Your task to perform on an android device: toggle improve location accuracy Image 0: 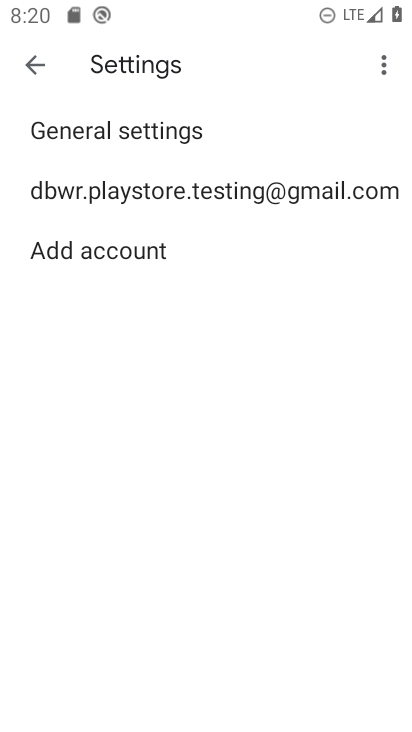
Step 0: press home button
Your task to perform on an android device: toggle improve location accuracy Image 1: 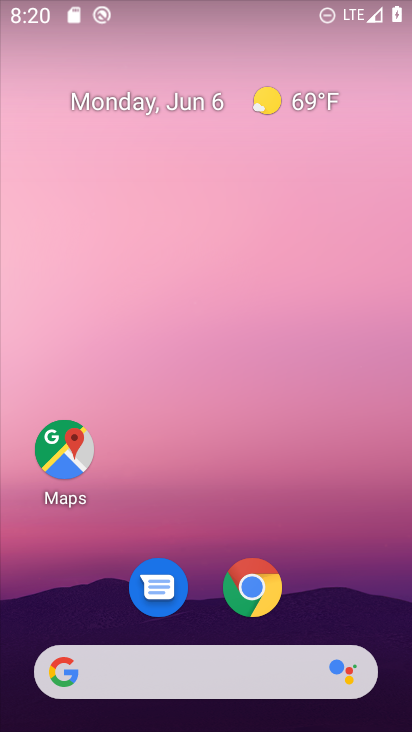
Step 1: drag from (336, 587) to (336, 133)
Your task to perform on an android device: toggle improve location accuracy Image 2: 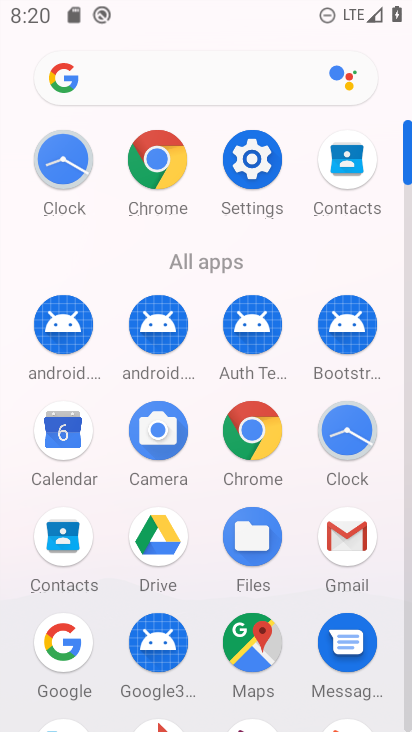
Step 2: click (255, 165)
Your task to perform on an android device: toggle improve location accuracy Image 3: 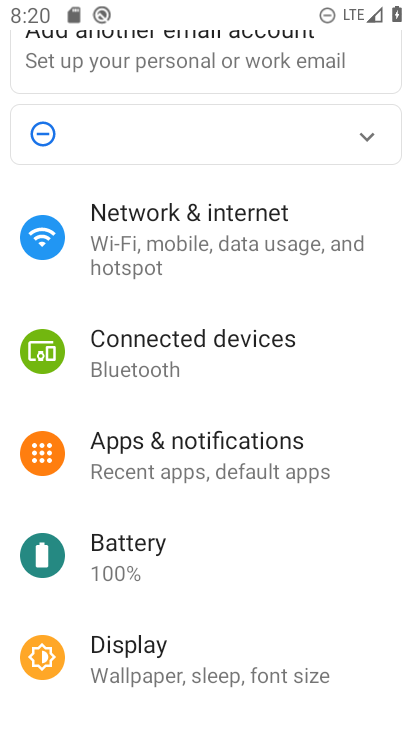
Step 3: drag from (171, 646) to (256, 150)
Your task to perform on an android device: toggle improve location accuracy Image 4: 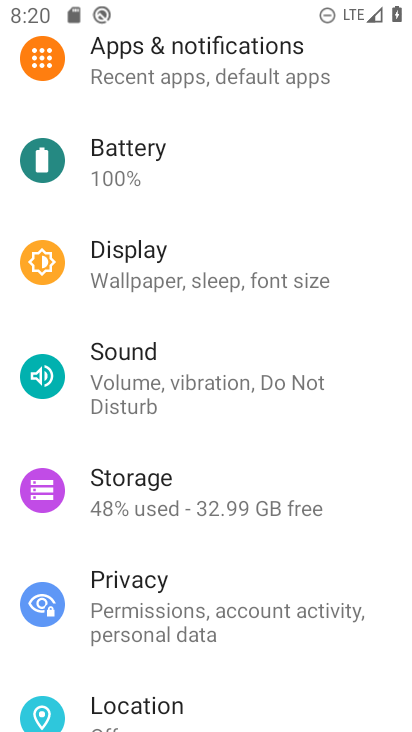
Step 4: drag from (161, 521) to (238, 289)
Your task to perform on an android device: toggle improve location accuracy Image 5: 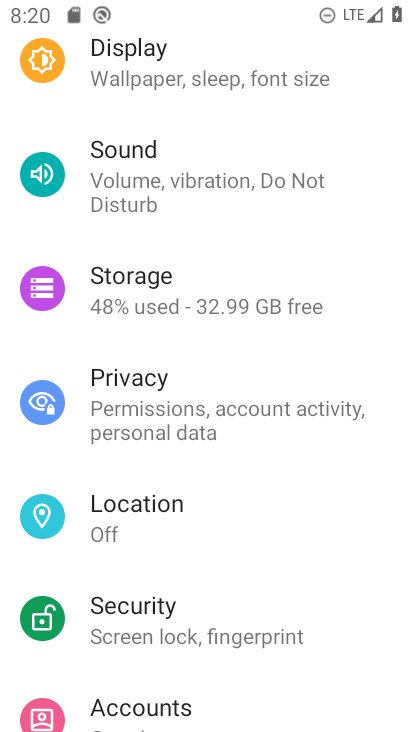
Step 5: click (124, 521)
Your task to perform on an android device: toggle improve location accuracy Image 6: 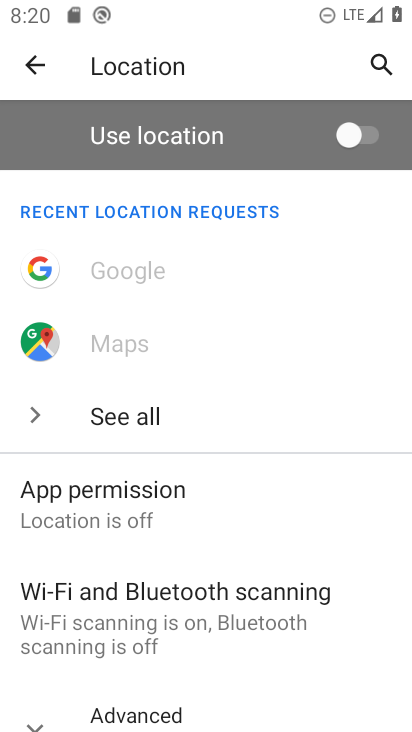
Step 6: click (138, 705)
Your task to perform on an android device: toggle improve location accuracy Image 7: 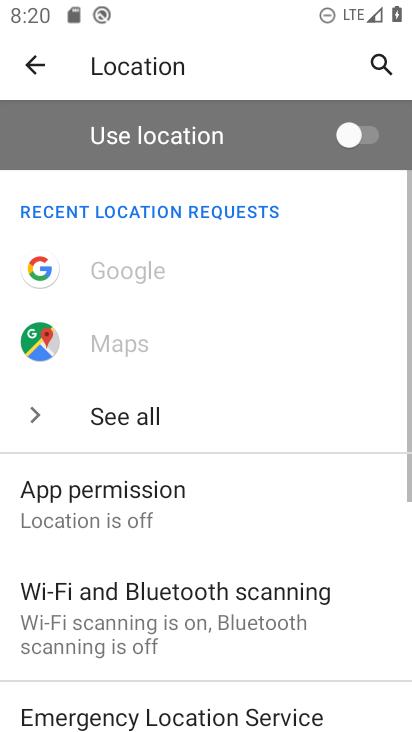
Step 7: drag from (294, 630) to (286, 226)
Your task to perform on an android device: toggle improve location accuracy Image 8: 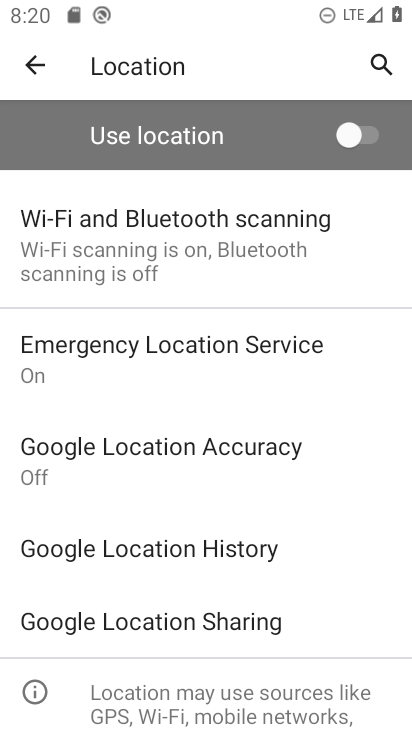
Step 8: click (231, 435)
Your task to perform on an android device: toggle improve location accuracy Image 9: 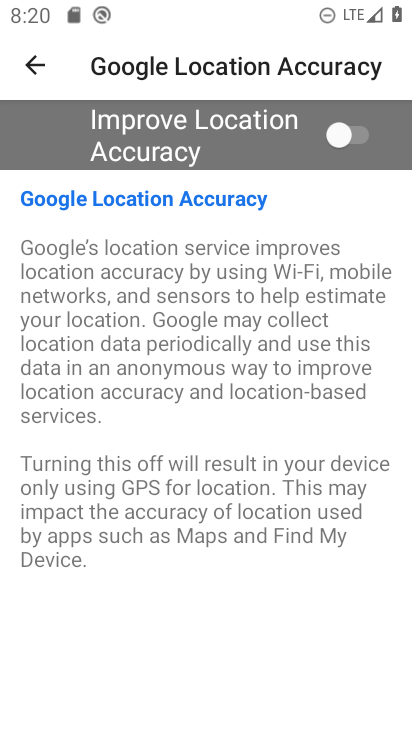
Step 9: click (335, 143)
Your task to perform on an android device: toggle improve location accuracy Image 10: 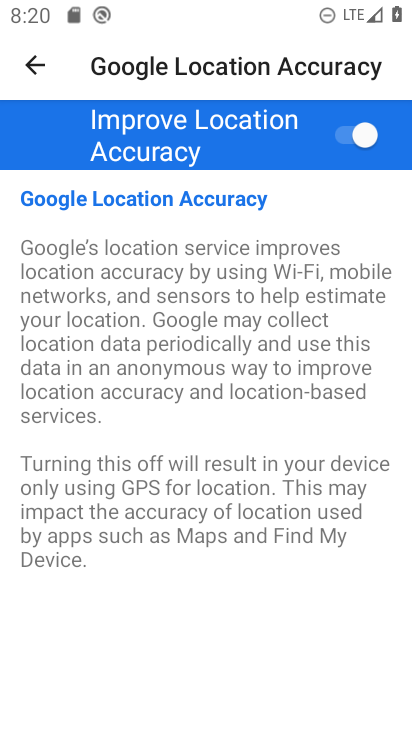
Step 10: task complete